Your task to perform on an android device: Open Youtube and go to the subscriptions tab Image 0: 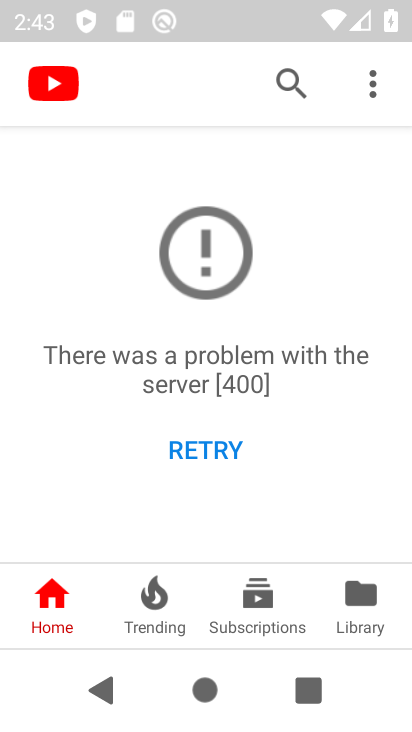
Step 0: press home button
Your task to perform on an android device: Open Youtube and go to the subscriptions tab Image 1: 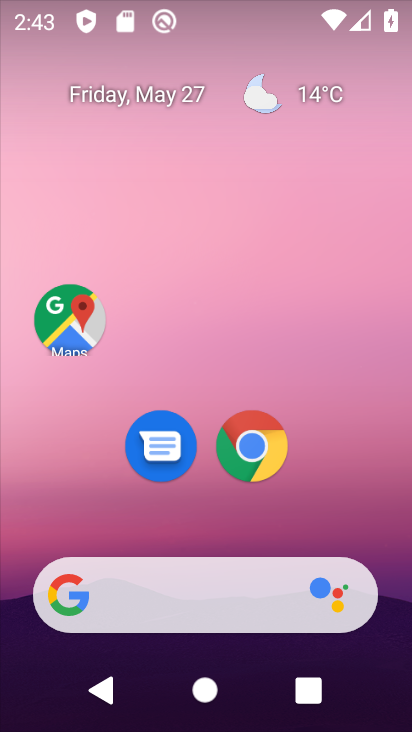
Step 1: drag from (206, 584) to (324, 85)
Your task to perform on an android device: Open Youtube and go to the subscriptions tab Image 2: 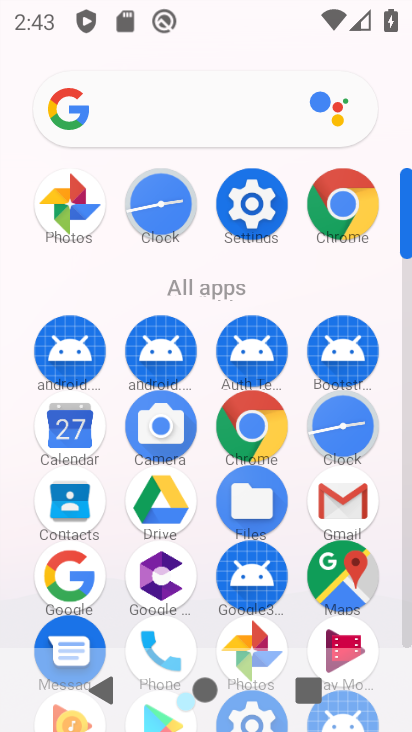
Step 2: drag from (213, 537) to (360, 69)
Your task to perform on an android device: Open Youtube and go to the subscriptions tab Image 3: 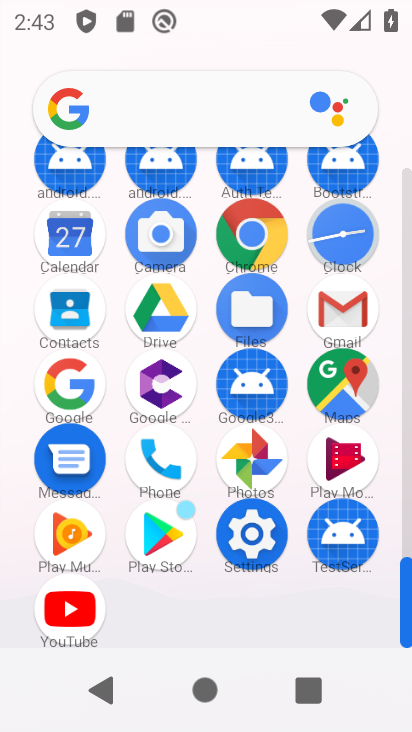
Step 3: click (73, 606)
Your task to perform on an android device: Open Youtube and go to the subscriptions tab Image 4: 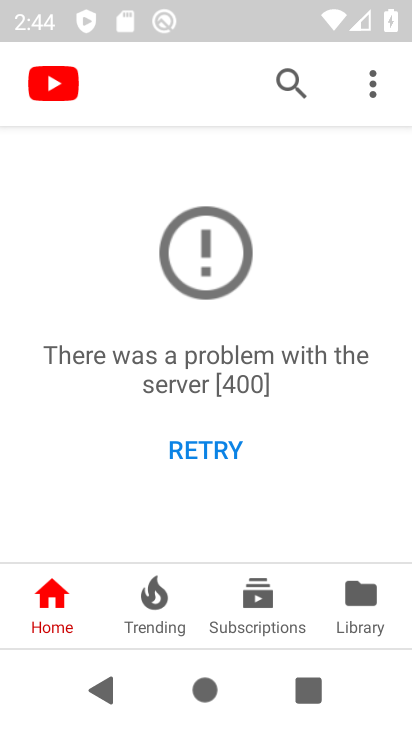
Step 4: click (262, 602)
Your task to perform on an android device: Open Youtube and go to the subscriptions tab Image 5: 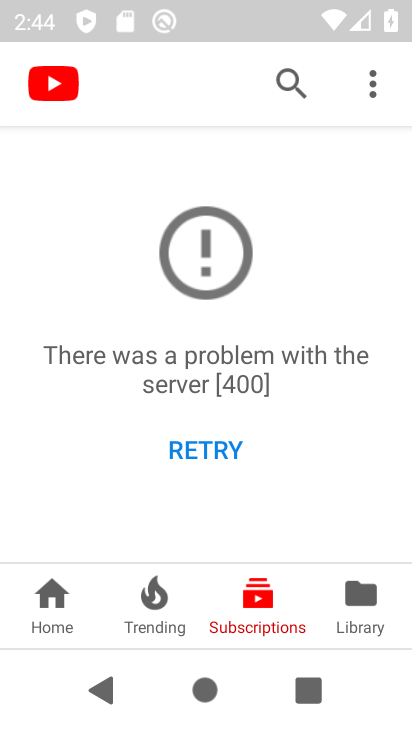
Step 5: click (189, 451)
Your task to perform on an android device: Open Youtube and go to the subscriptions tab Image 6: 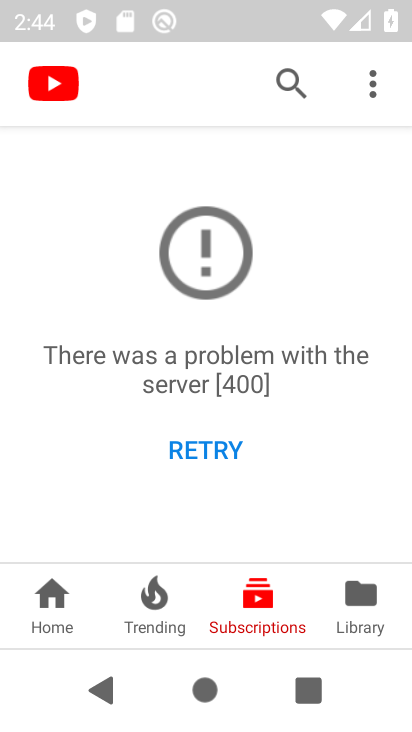
Step 6: click (195, 449)
Your task to perform on an android device: Open Youtube and go to the subscriptions tab Image 7: 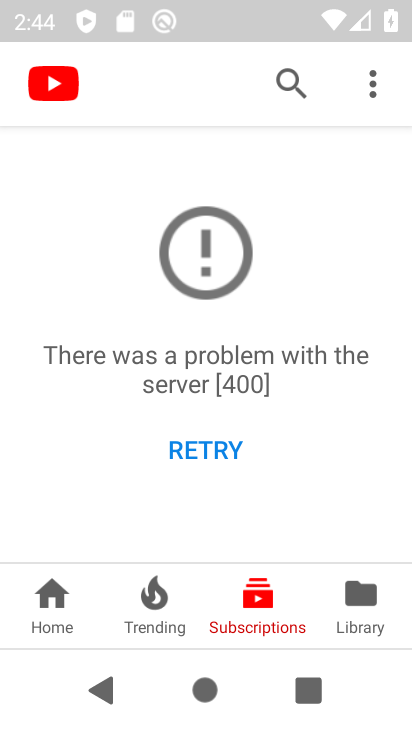
Step 7: task complete